Your task to perform on an android device: Go to location settings Image 0: 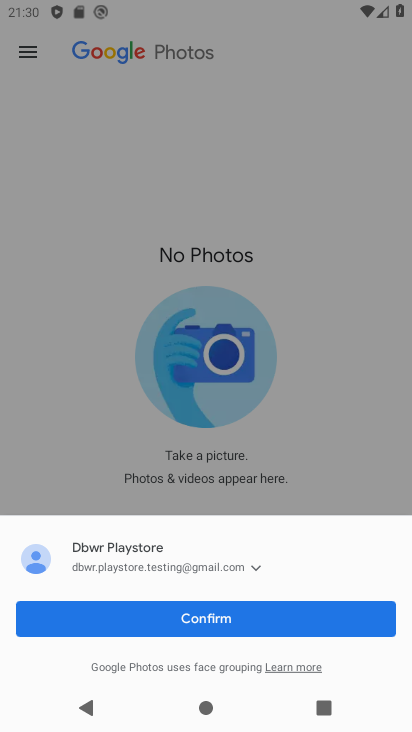
Step 0: press home button
Your task to perform on an android device: Go to location settings Image 1: 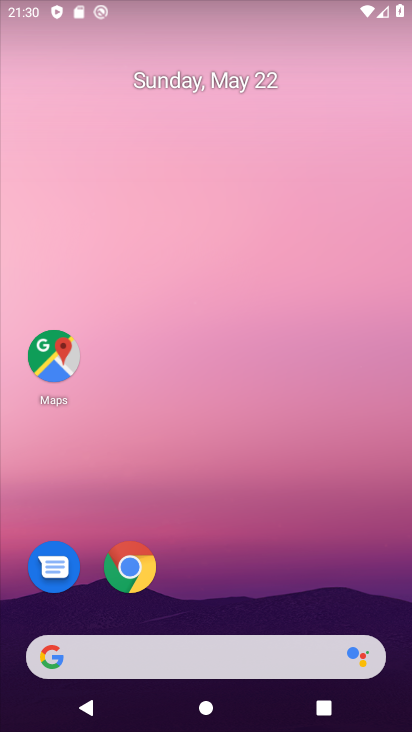
Step 1: drag from (260, 527) to (279, 311)
Your task to perform on an android device: Go to location settings Image 2: 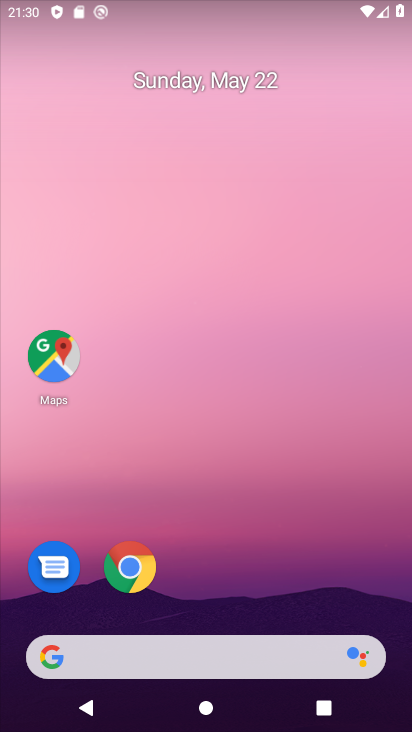
Step 2: drag from (234, 525) to (263, 114)
Your task to perform on an android device: Go to location settings Image 3: 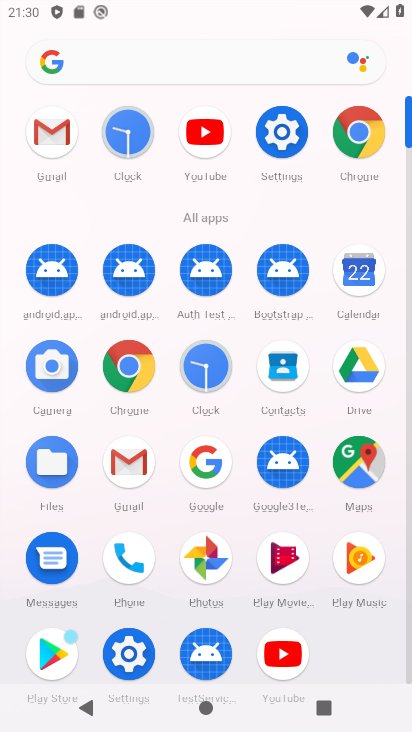
Step 3: click (279, 126)
Your task to perform on an android device: Go to location settings Image 4: 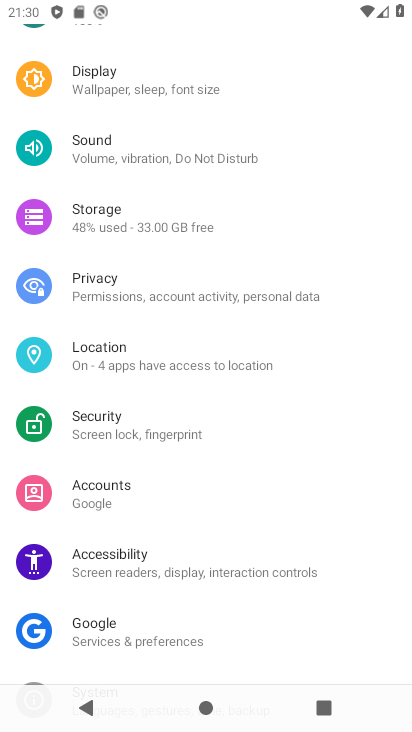
Step 4: click (154, 349)
Your task to perform on an android device: Go to location settings Image 5: 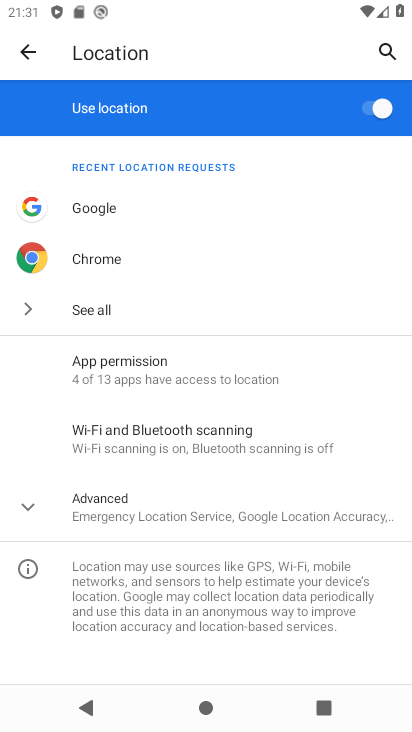
Step 5: task complete